Your task to perform on an android device: Open calendar and show me the first week of next month Image 0: 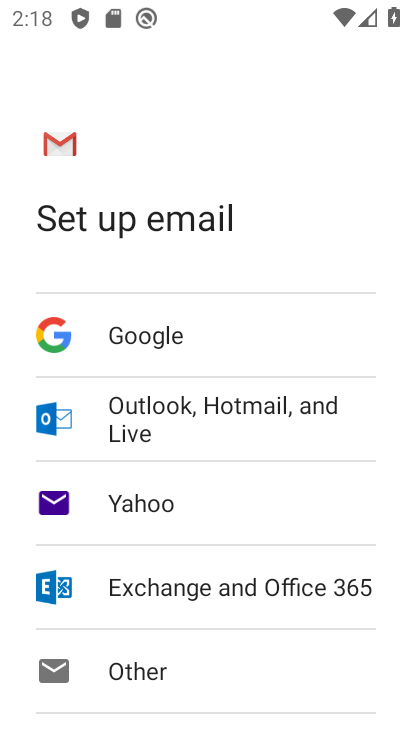
Step 0: press home button
Your task to perform on an android device: Open calendar and show me the first week of next month Image 1: 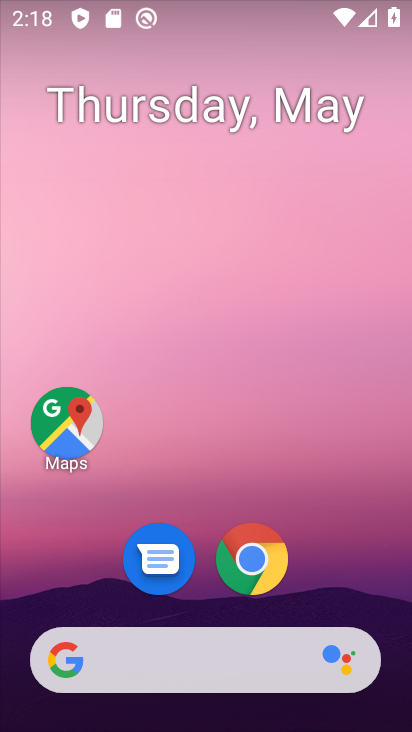
Step 1: drag from (200, 597) to (197, 159)
Your task to perform on an android device: Open calendar and show me the first week of next month Image 2: 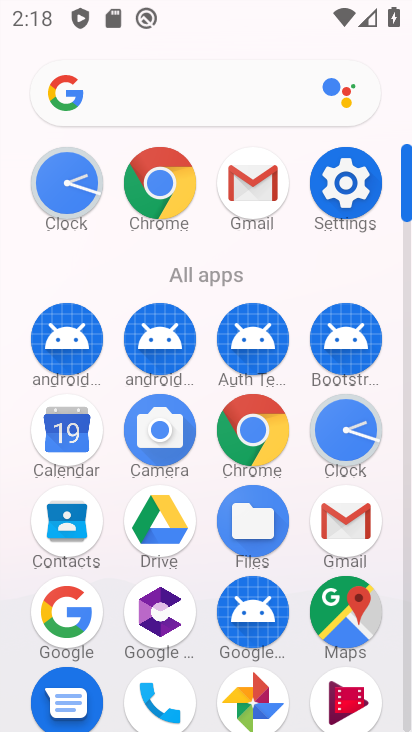
Step 2: click (72, 420)
Your task to perform on an android device: Open calendar and show me the first week of next month Image 3: 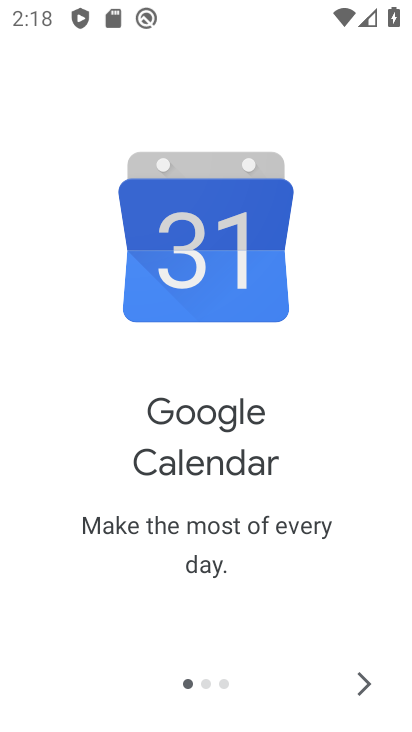
Step 3: click (359, 677)
Your task to perform on an android device: Open calendar and show me the first week of next month Image 4: 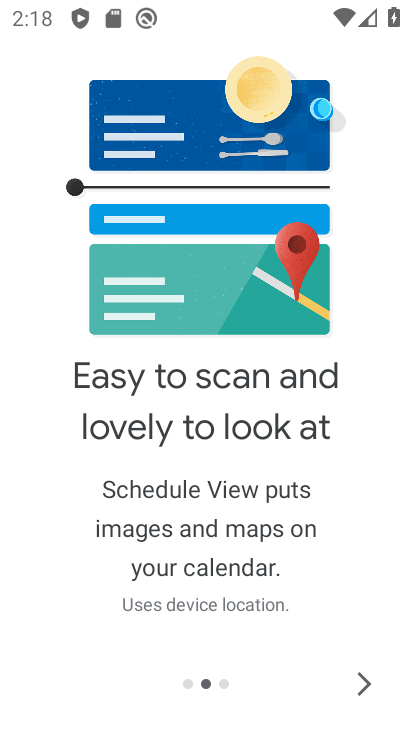
Step 4: click (359, 677)
Your task to perform on an android device: Open calendar and show me the first week of next month Image 5: 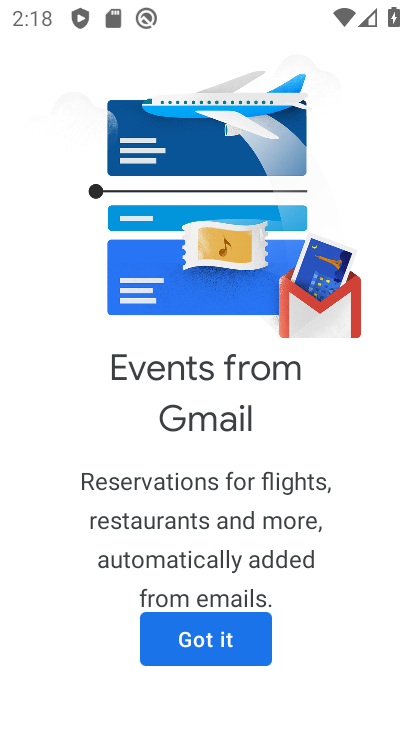
Step 5: click (216, 628)
Your task to perform on an android device: Open calendar and show me the first week of next month Image 6: 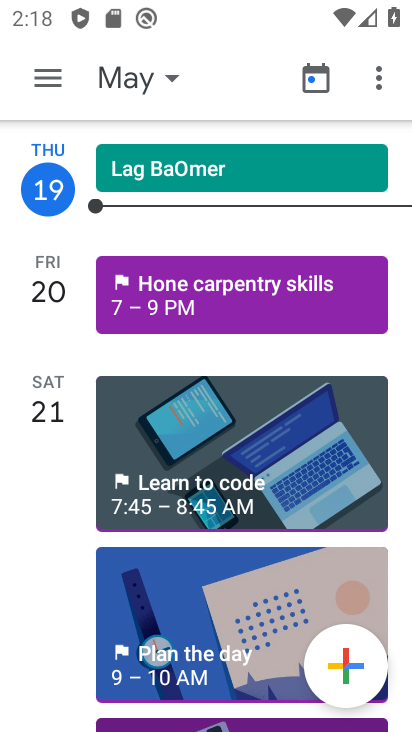
Step 6: click (167, 75)
Your task to perform on an android device: Open calendar and show me the first week of next month Image 7: 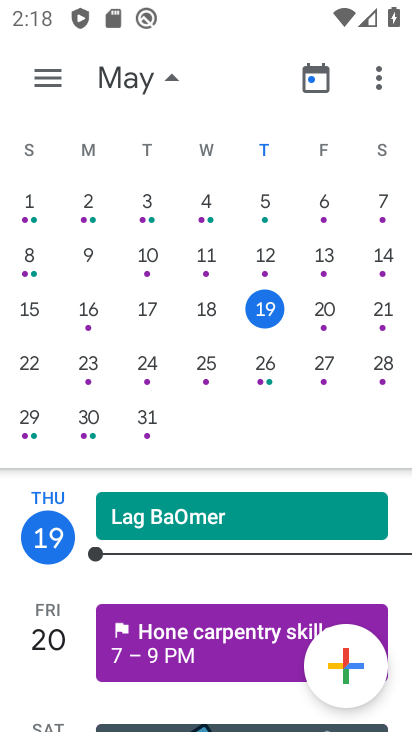
Step 7: drag from (347, 271) to (22, 277)
Your task to perform on an android device: Open calendar and show me the first week of next month Image 8: 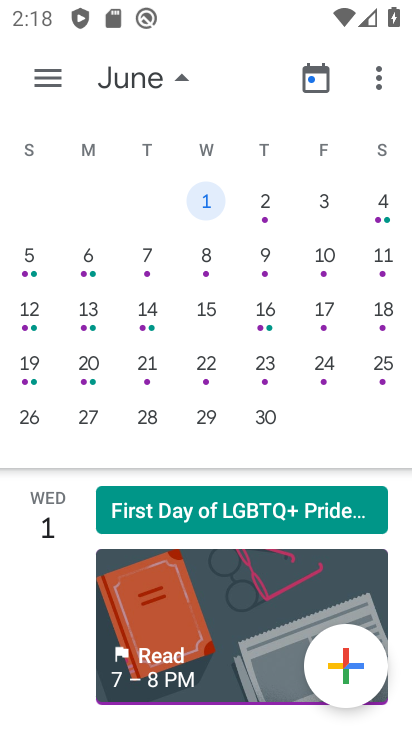
Step 8: click (201, 192)
Your task to perform on an android device: Open calendar and show me the first week of next month Image 9: 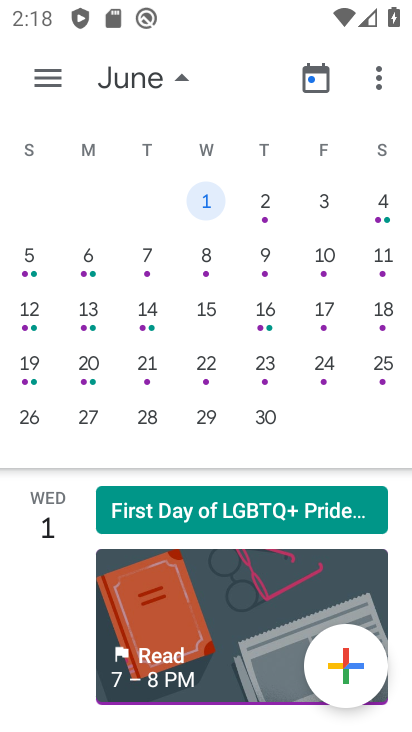
Step 9: task complete